Your task to perform on an android device: turn off notifications settings in the gmail app Image 0: 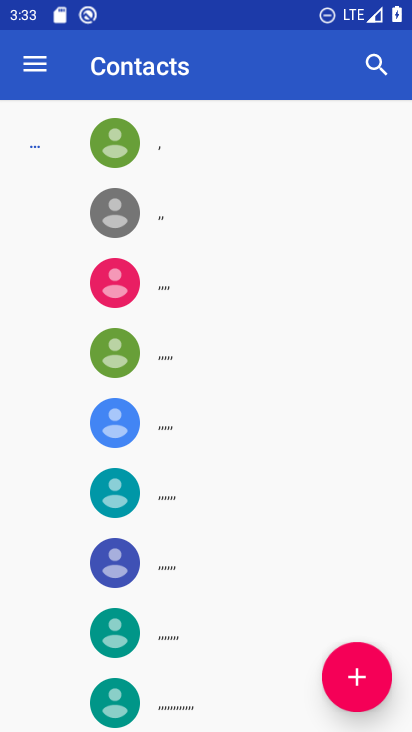
Step 0: press home button
Your task to perform on an android device: turn off notifications settings in the gmail app Image 1: 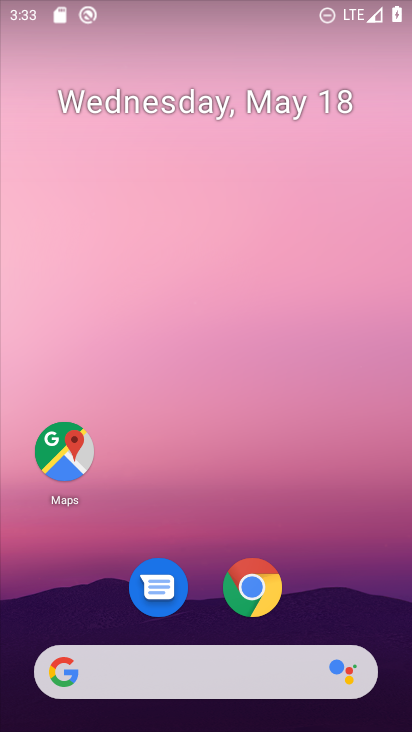
Step 1: drag from (195, 652) to (167, 117)
Your task to perform on an android device: turn off notifications settings in the gmail app Image 2: 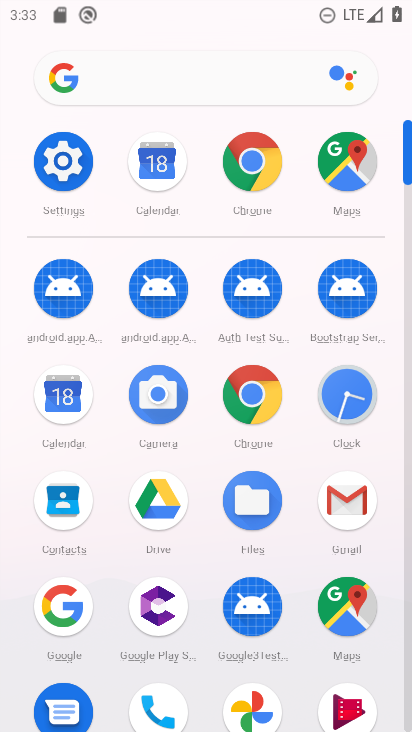
Step 2: click (350, 518)
Your task to perform on an android device: turn off notifications settings in the gmail app Image 3: 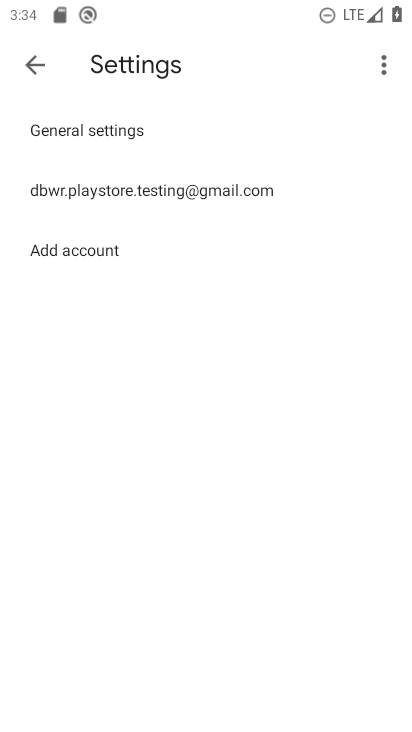
Step 3: click (166, 191)
Your task to perform on an android device: turn off notifications settings in the gmail app Image 4: 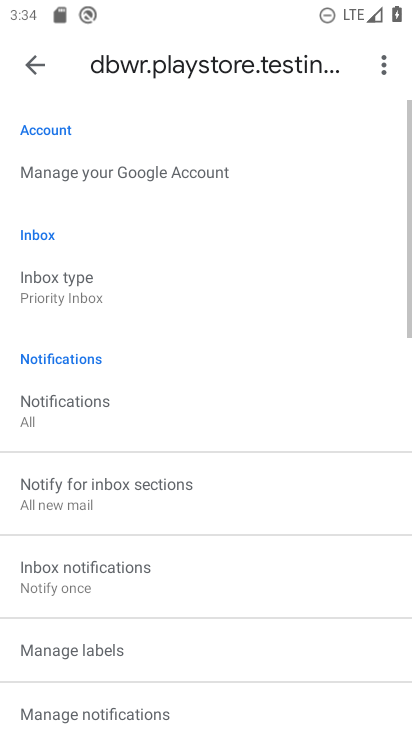
Step 4: drag from (247, 610) to (215, 399)
Your task to perform on an android device: turn off notifications settings in the gmail app Image 5: 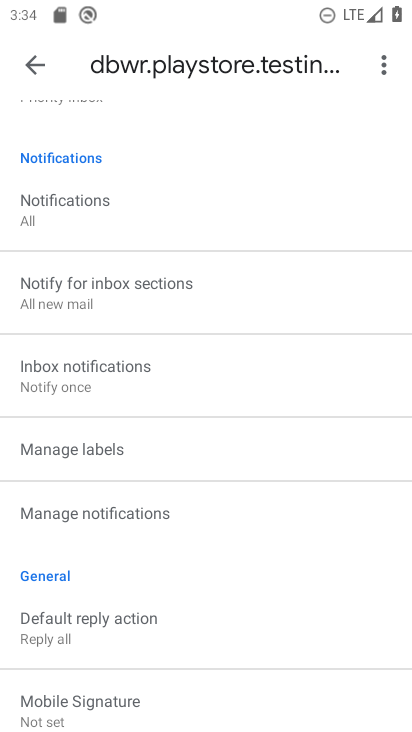
Step 5: click (71, 517)
Your task to perform on an android device: turn off notifications settings in the gmail app Image 6: 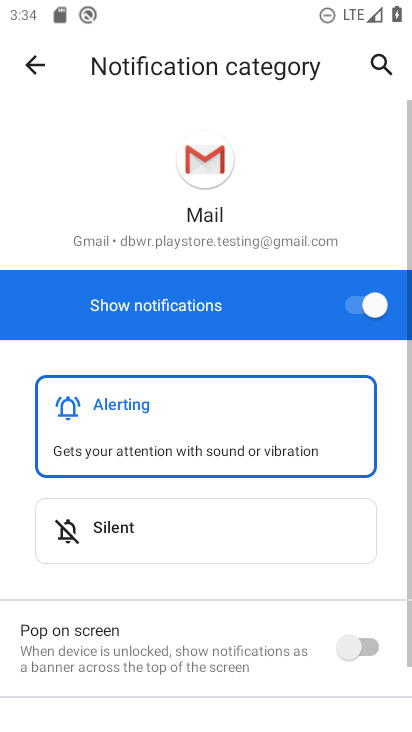
Step 6: click (372, 301)
Your task to perform on an android device: turn off notifications settings in the gmail app Image 7: 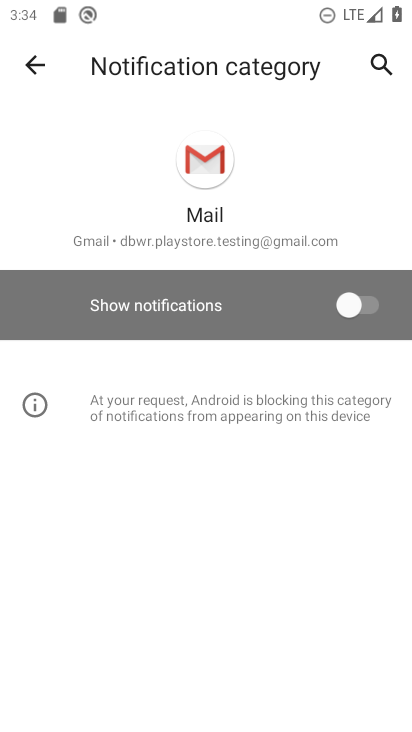
Step 7: task complete